Your task to perform on an android device: Is it going to rain this weekend? Image 0: 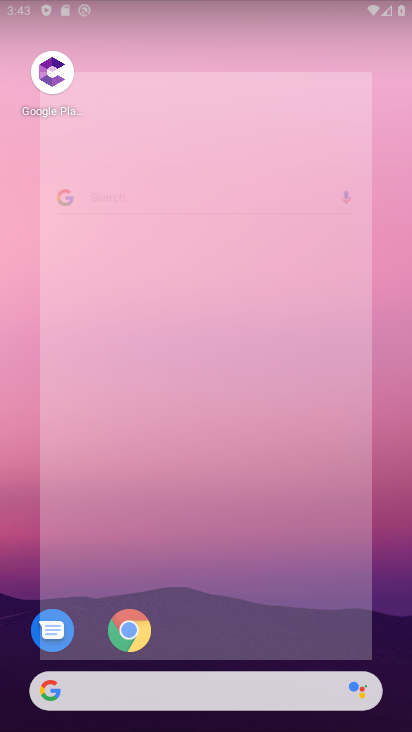
Step 0: drag from (334, 488) to (277, 59)
Your task to perform on an android device: Is it going to rain this weekend? Image 1: 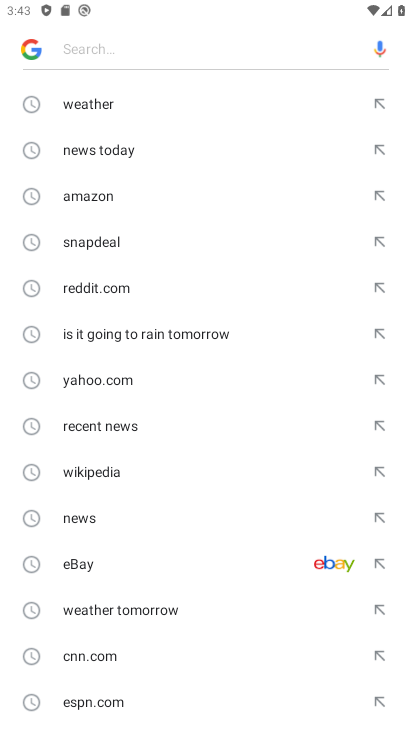
Step 1: click (76, 103)
Your task to perform on an android device: Is it going to rain this weekend? Image 2: 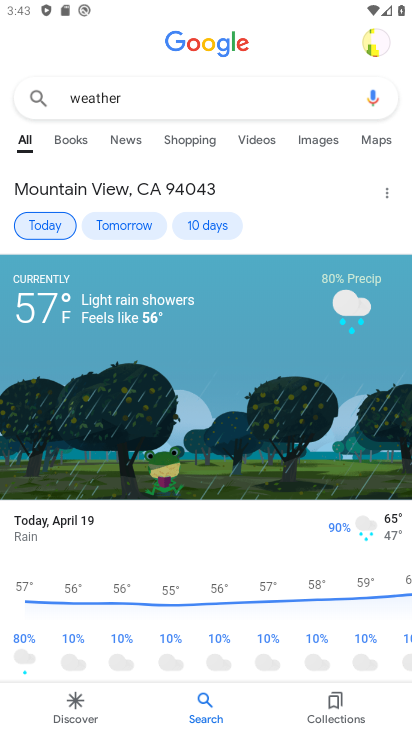
Step 2: task complete